Your task to perform on an android device: Open accessibility settings Image 0: 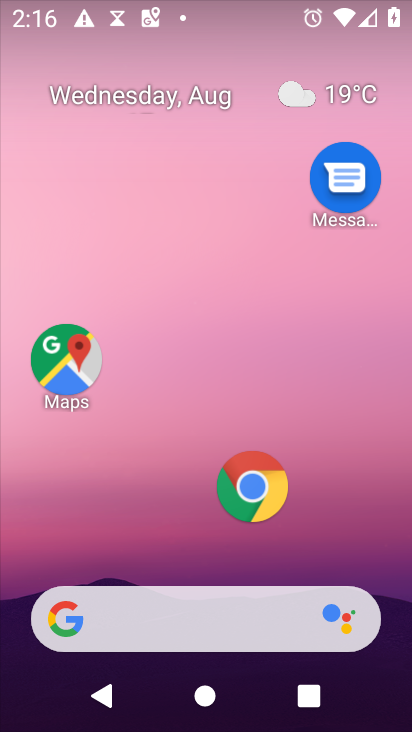
Step 0: drag from (166, 566) to (220, 103)
Your task to perform on an android device: Open accessibility settings Image 1: 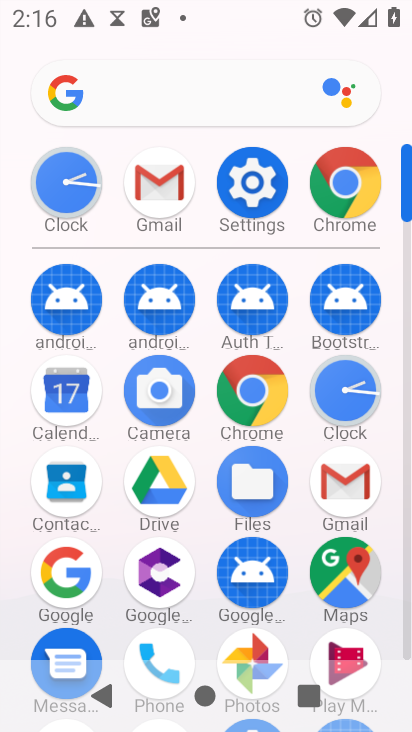
Step 1: click (240, 188)
Your task to perform on an android device: Open accessibility settings Image 2: 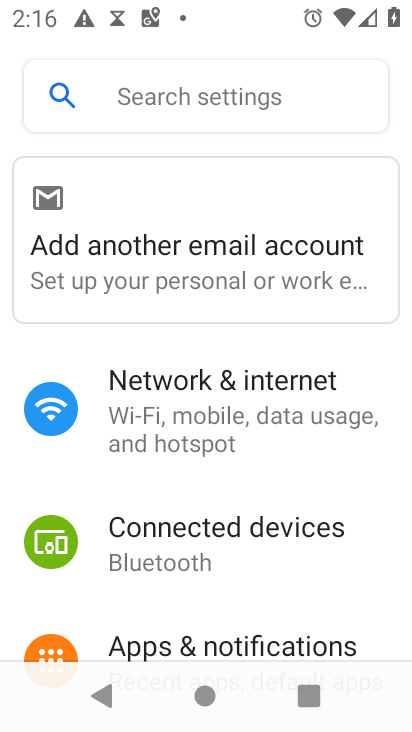
Step 2: drag from (180, 590) to (302, 21)
Your task to perform on an android device: Open accessibility settings Image 3: 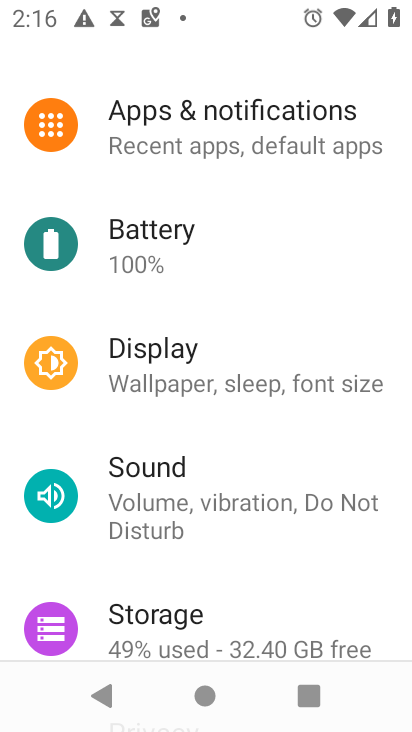
Step 3: drag from (203, 598) to (341, 65)
Your task to perform on an android device: Open accessibility settings Image 4: 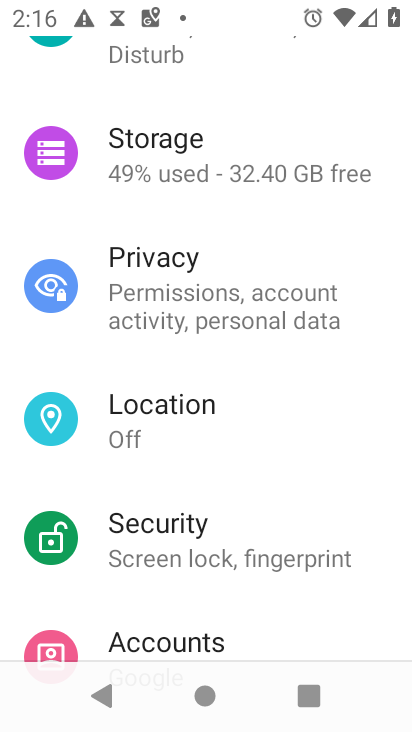
Step 4: drag from (204, 628) to (367, 51)
Your task to perform on an android device: Open accessibility settings Image 5: 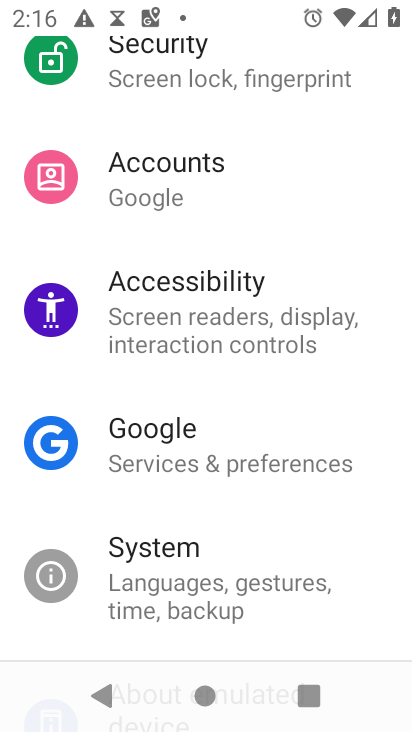
Step 5: click (183, 313)
Your task to perform on an android device: Open accessibility settings Image 6: 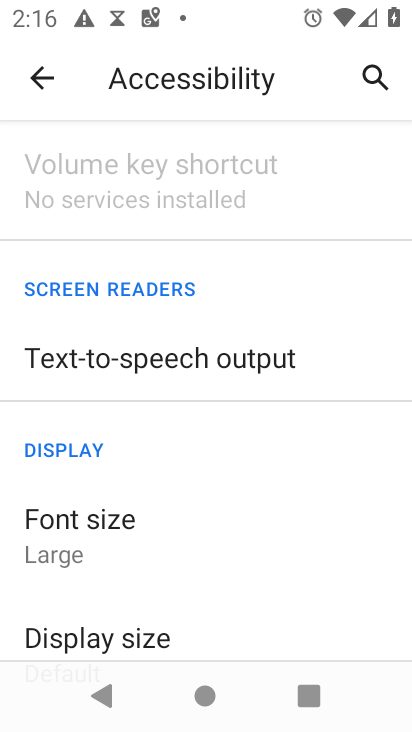
Step 6: task complete